Your task to perform on an android device: toggle translation in the chrome app Image 0: 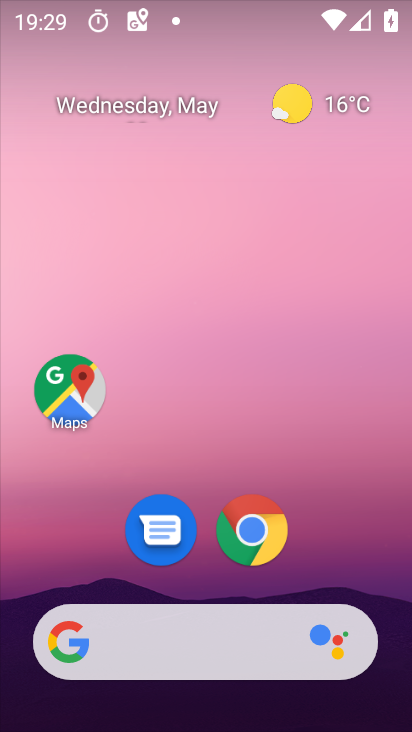
Step 0: click (247, 531)
Your task to perform on an android device: toggle translation in the chrome app Image 1: 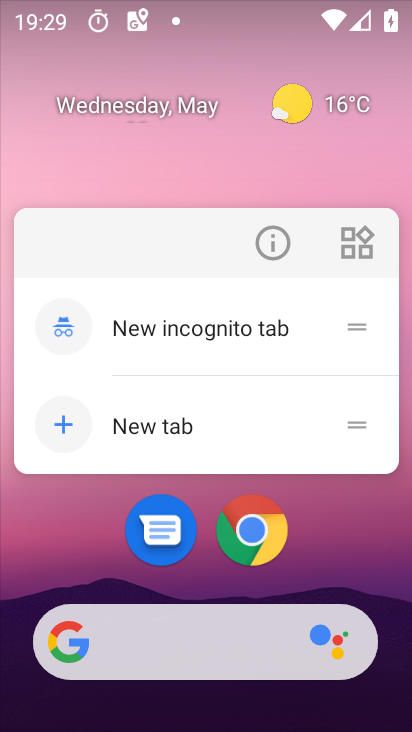
Step 1: click (247, 531)
Your task to perform on an android device: toggle translation in the chrome app Image 2: 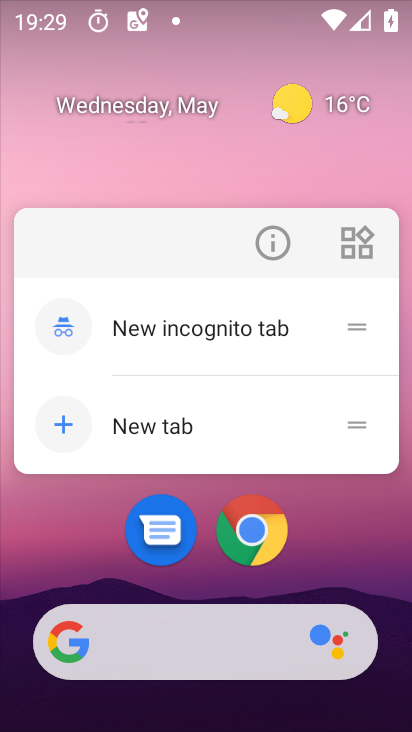
Step 2: click (266, 237)
Your task to perform on an android device: toggle translation in the chrome app Image 3: 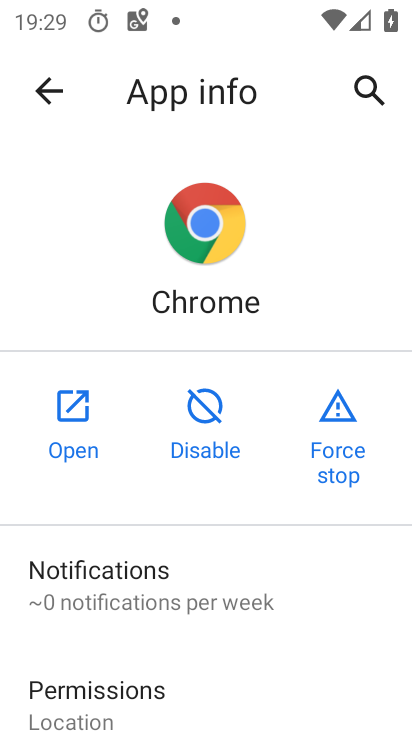
Step 3: click (83, 419)
Your task to perform on an android device: toggle translation in the chrome app Image 4: 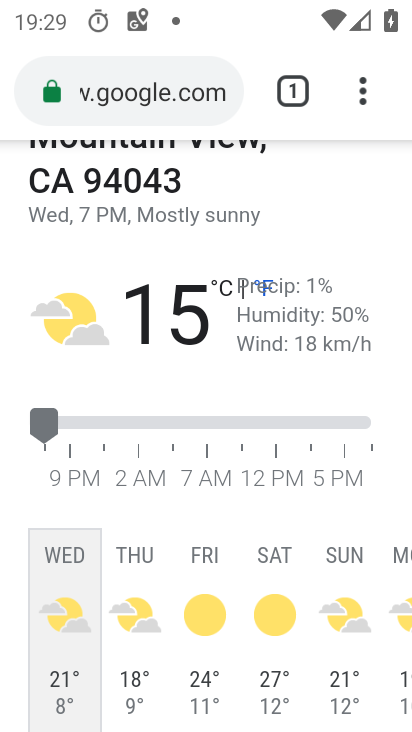
Step 4: click (364, 89)
Your task to perform on an android device: toggle translation in the chrome app Image 5: 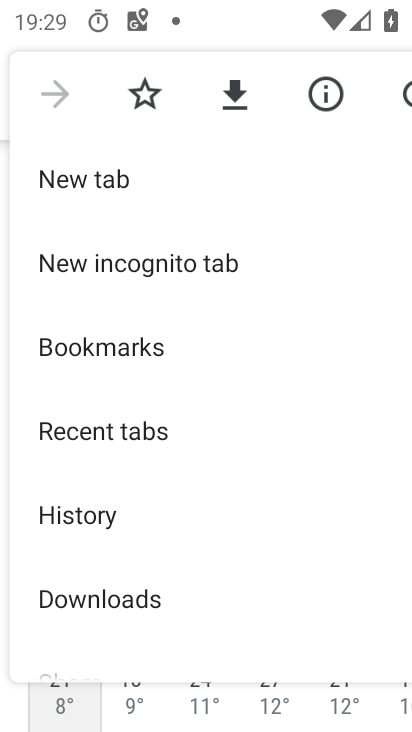
Step 5: drag from (111, 518) to (179, 176)
Your task to perform on an android device: toggle translation in the chrome app Image 6: 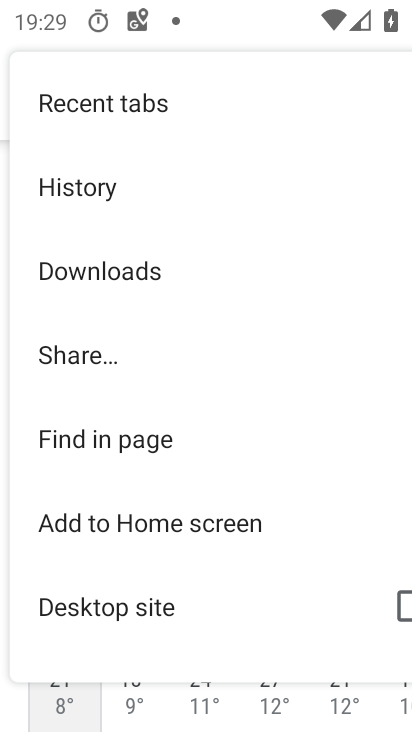
Step 6: drag from (119, 554) to (203, 219)
Your task to perform on an android device: toggle translation in the chrome app Image 7: 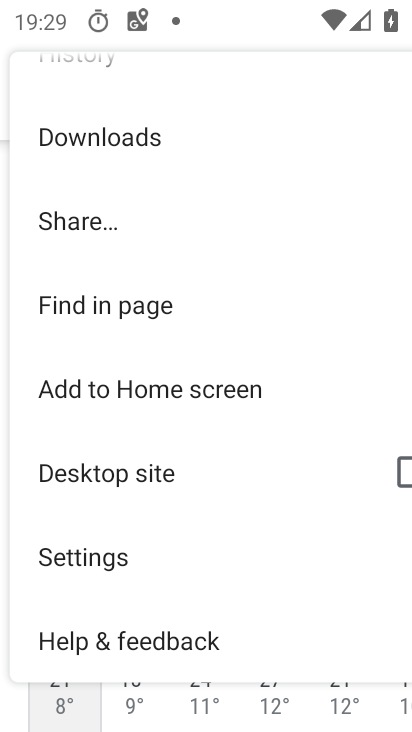
Step 7: click (127, 547)
Your task to perform on an android device: toggle translation in the chrome app Image 8: 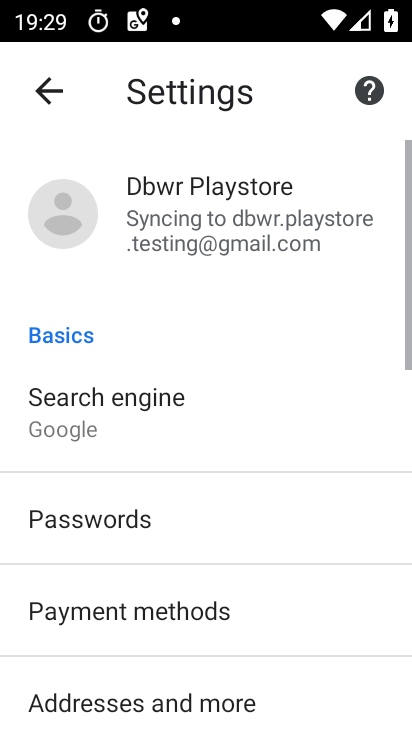
Step 8: drag from (142, 582) to (208, 195)
Your task to perform on an android device: toggle translation in the chrome app Image 9: 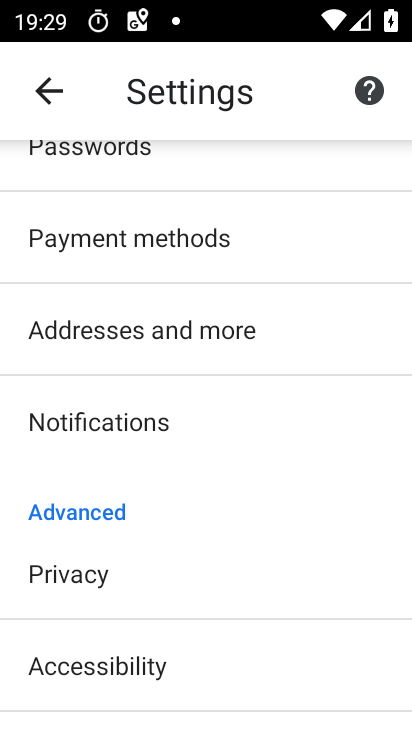
Step 9: drag from (166, 564) to (254, 235)
Your task to perform on an android device: toggle translation in the chrome app Image 10: 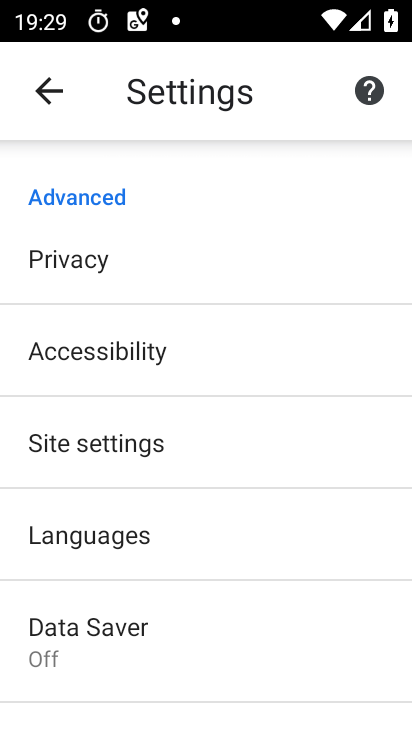
Step 10: click (164, 436)
Your task to perform on an android device: toggle translation in the chrome app Image 11: 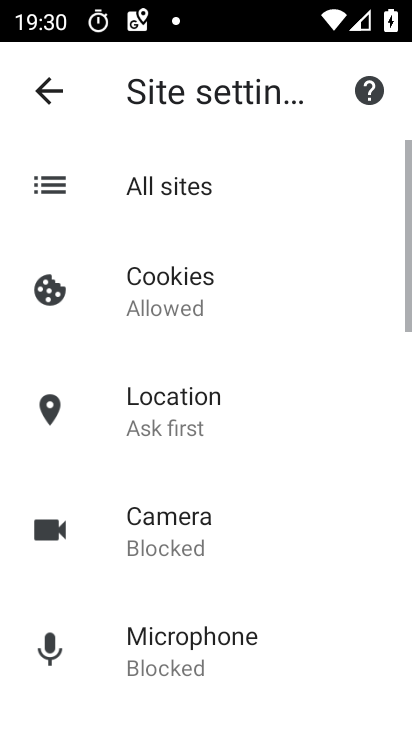
Step 11: drag from (151, 503) to (199, 141)
Your task to perform on an android device: toggle translation in the chrome app Image 12: 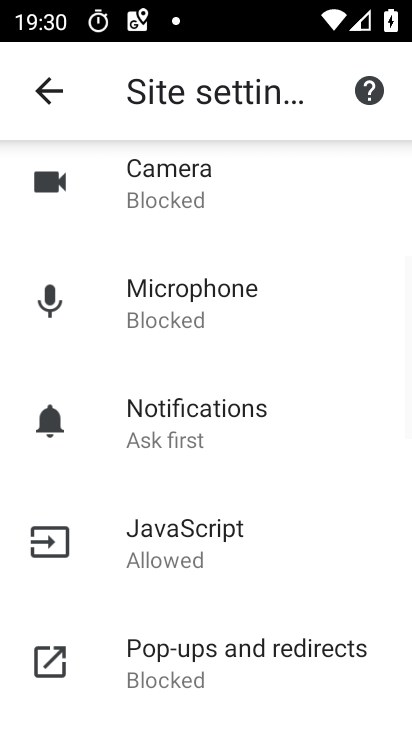
Step 12: drag from (160, 580) to (219, 270)
Your task to perform on an android device: toggle translation in the chrome app Image 13: 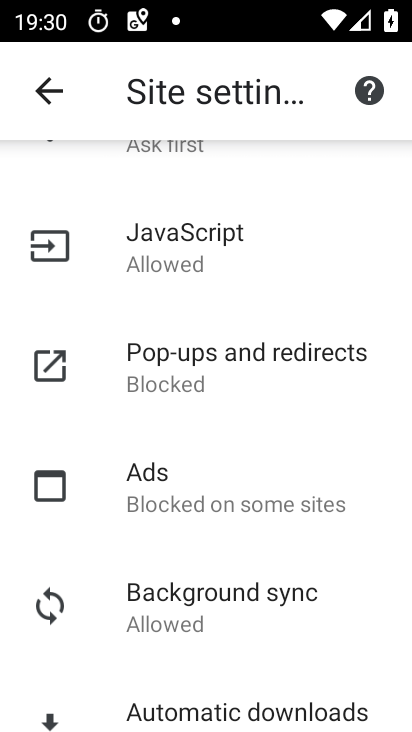
Step 13: drag from (145, 584) to (182, 296)
Your task to perform on an android device: toggle translation in the chrome app Image 14: 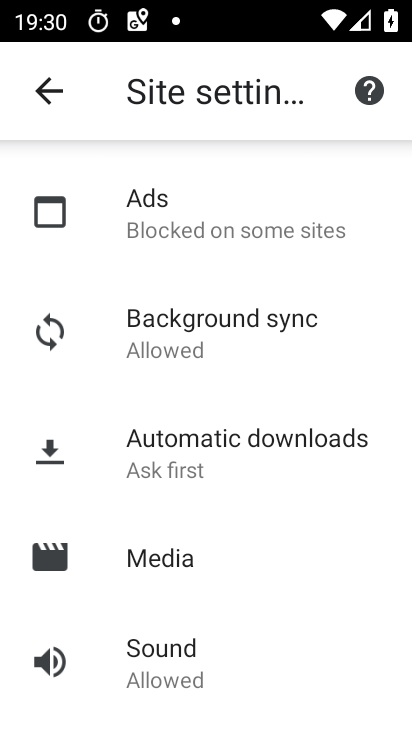
Step 14: drag from (175, 552) to (233, 202)
Your task to perform on an android device: toggle translation in the chrome app Image 15: 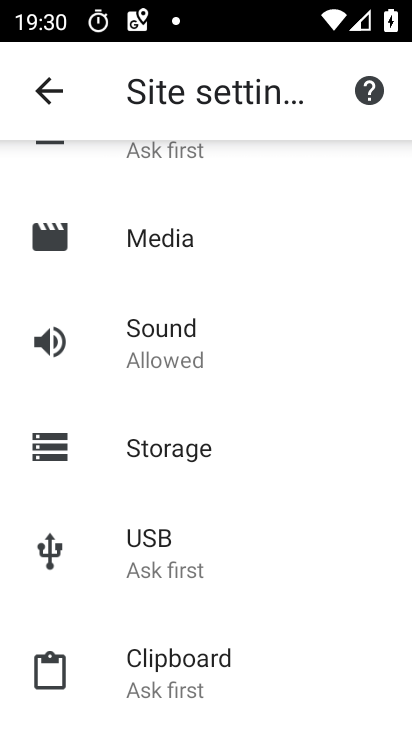
Step 15: drag from (227, 499) to (250, 175)
Your task to perform on an android device: toggle translation in the chrome app Image 16: 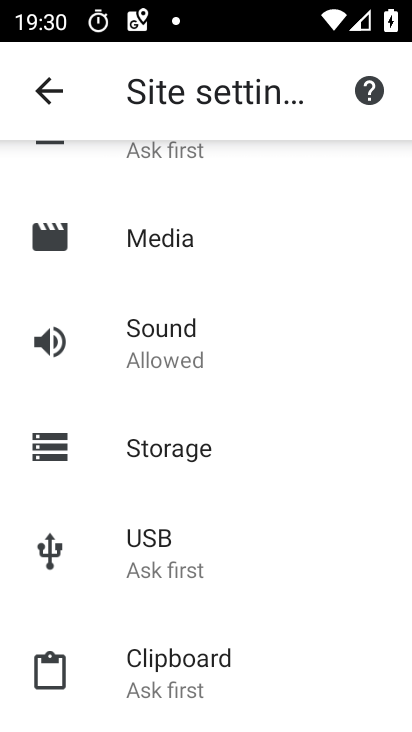
Step 16: click (40, 79)
Your task to perform on an android device: toggle translation in the chrome app Image 17: 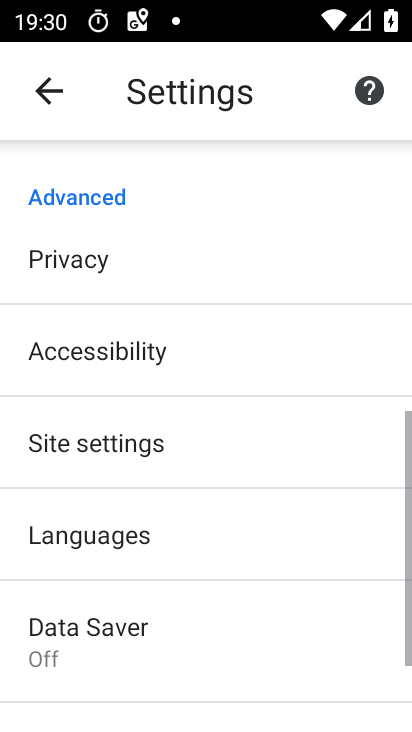
Step 17: drag from (149, 550) to (237, 243)
Your task to perform on an android device: toggle translation in the chrome app Image 18: 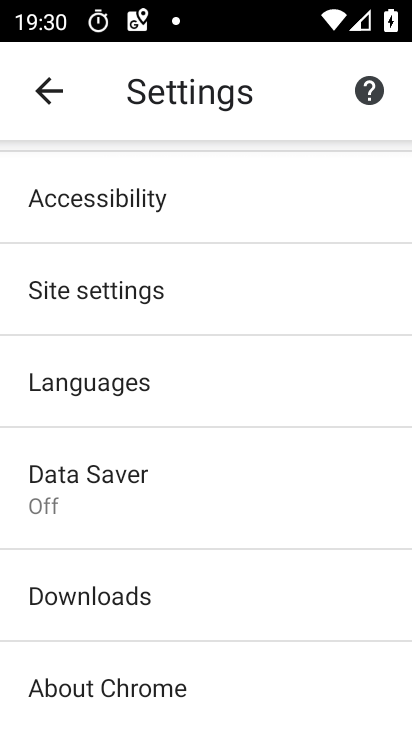
Step 18: click (135, 399)
Your task to perform on an android device: toggle translation in the chrome app Image 19: 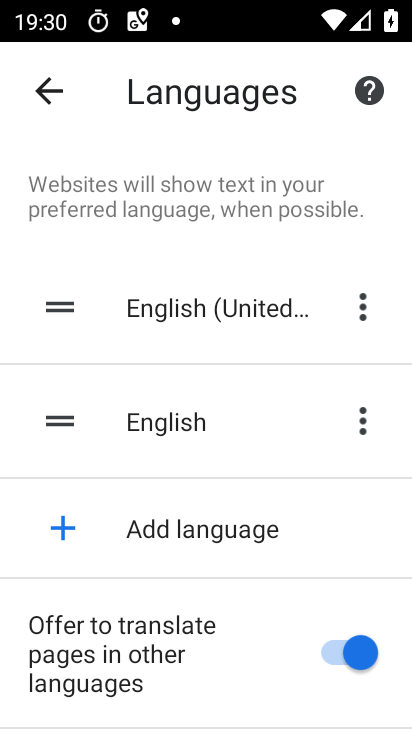
Step 19: click (340, 651)
Your task to perform on an android device: toggle translation in the chrome app Image 20: 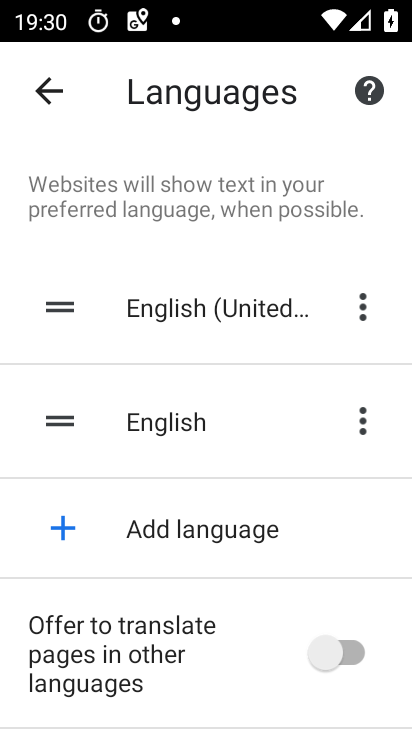
Step 20: task complete